Your task to perform on an android device: open the mobile data screen to see how much data has been used Image 0: 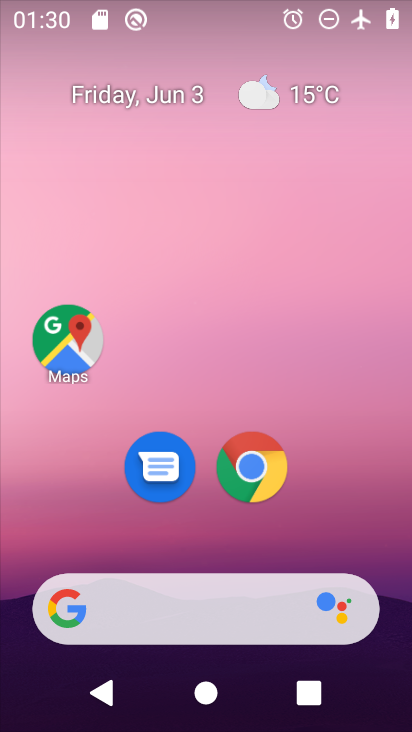
Step 0: drag from (402, 624) to (296, 4)
Your task to perform on an android device: open the mobile data screen to see how much data has been used Image 1: 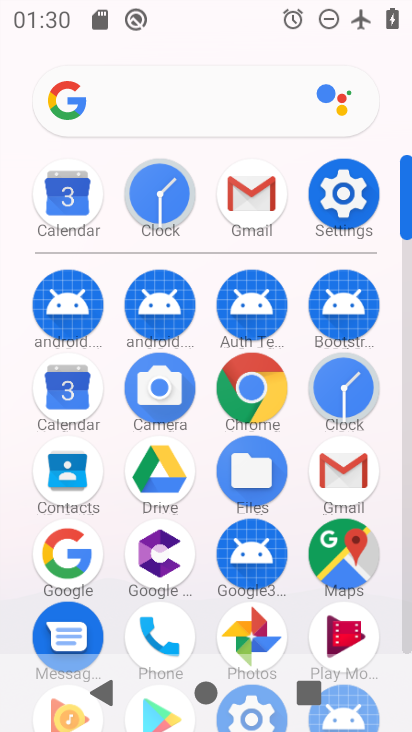
Step 1: click (408, 624)
Your task to perform on an android device: open the mobile data screen to see how much data has been used Image 2: 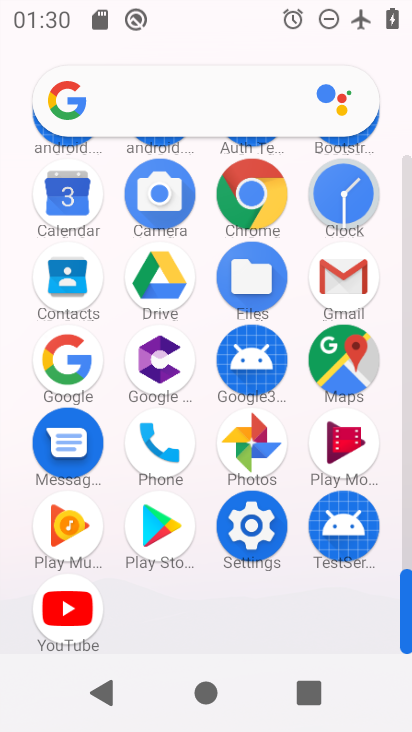
Step 2: click (253, 526)
Your task to perform on an android device: open the mobile data screen to see how much data has been used Image 3: 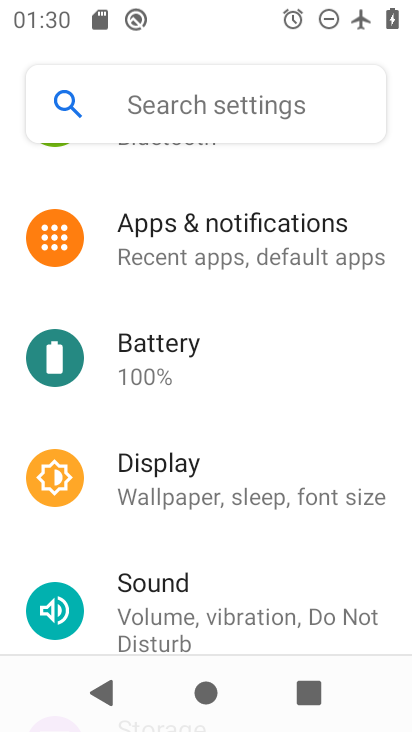
Step 3: drag from (373, 207) to (364, 494)
Your task to perform on an android device: open the mobile data screen to see how much data has been used Image 4: 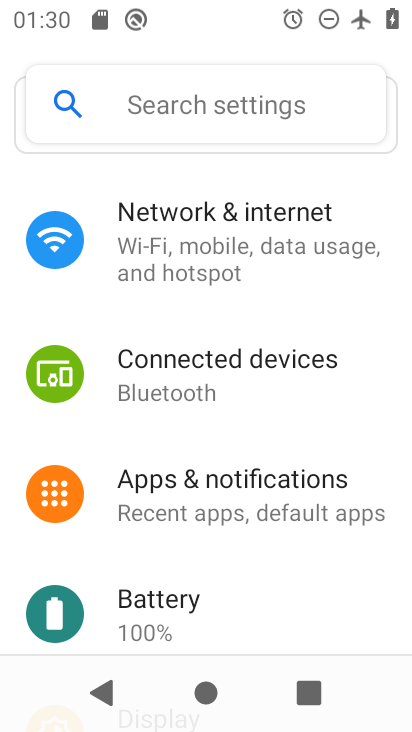
Step 4: click (161, 270)
Your task to perform on an android device: open the mobile data screen to see how much data has been used Image 5: 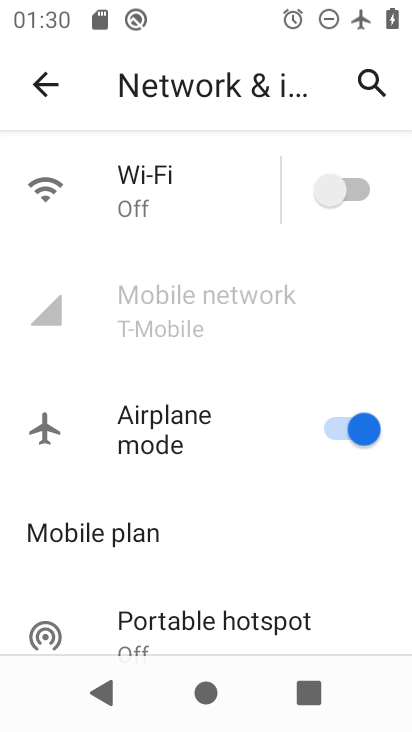
Step 5: click (323, 427)
Your task to perform on an android device: open the mobile data screen to see how much data has been used Image 6: 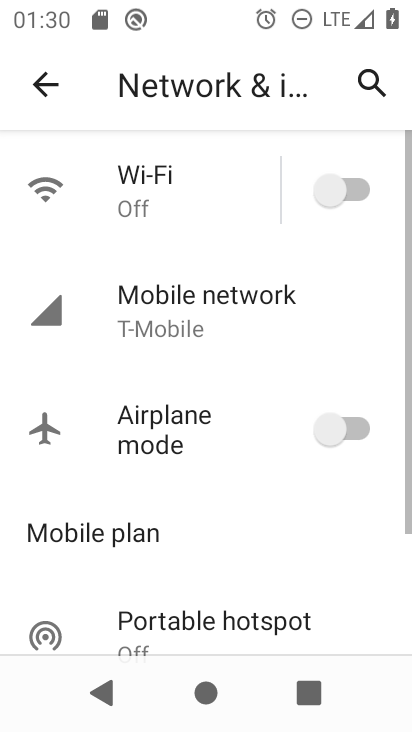
Step 6: click (155, 295)
Your task to perform on an android device: open the mobile data screen to see how much data has been used Image 7: 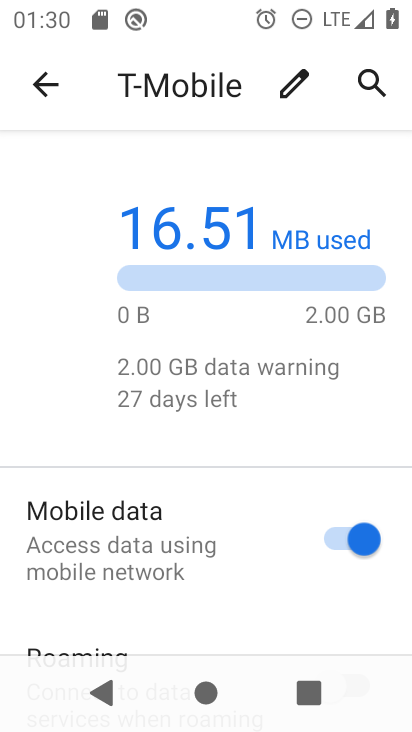
Step 7: task complete